Your task to perform on an android device: Show me the alarms in the clock app Image 0: 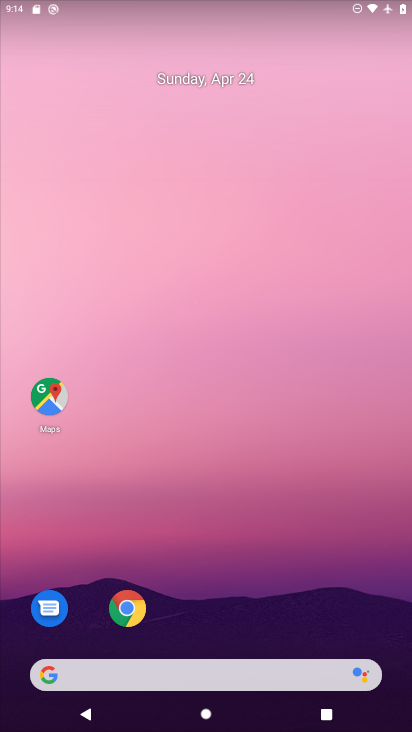
Step 0: drag from (221, 559) to (247, 114)
Your task to perform on an android device: Show me the alarms in the clock app Image 1: 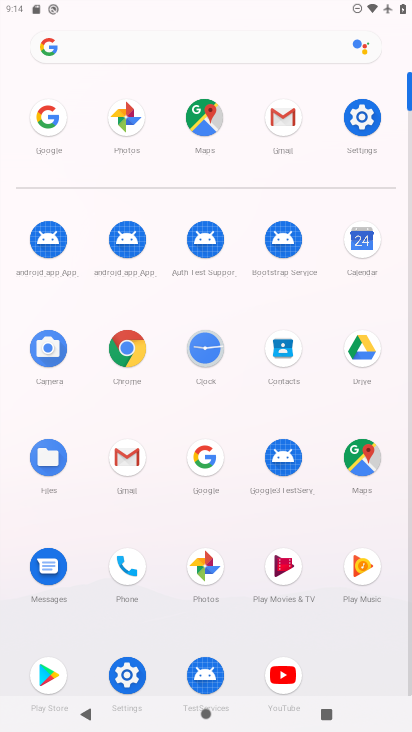
Step 1: click (193, 349)
Your task to perform on an android device: Show me the alarms in the clock app Image 2: 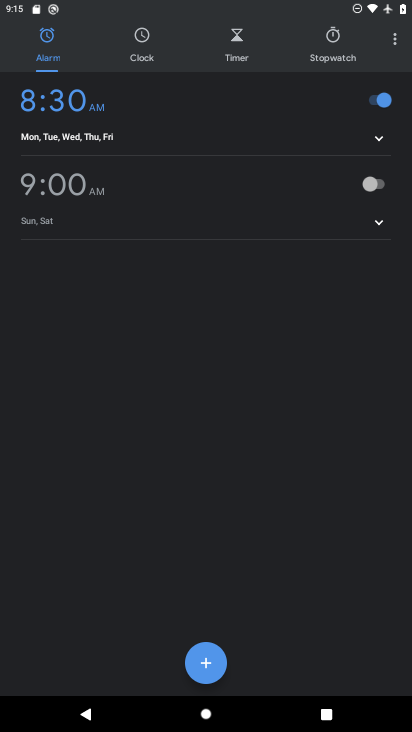
Step 2: task complete